Your task to perform on an android device: change alarm snooze length Image 0: 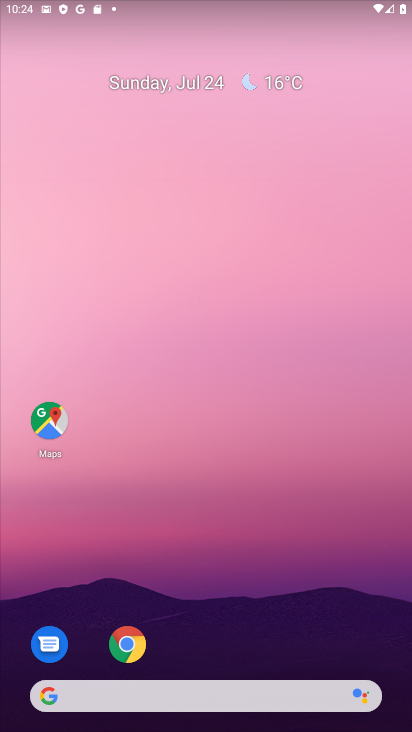
Step 0: drag from (258, 666) to (228, 195)
Your task to perform on an android device: change alarm snooze length Image 1: 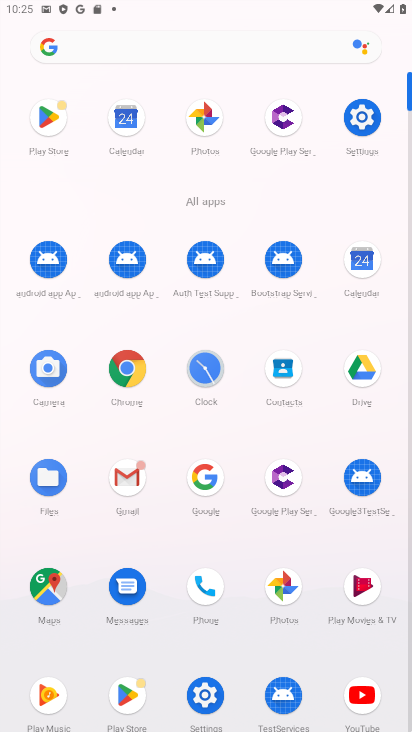
Step 1: click (208, 362)
Your task to perform on an android device: change alarm snooze length Image 2: 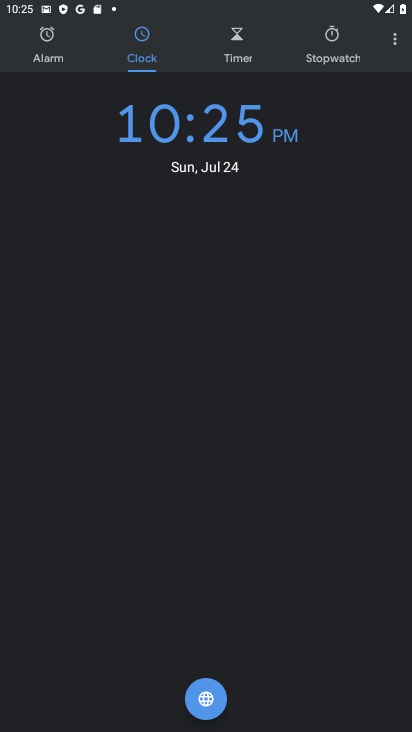
Step 2: click (402, 41)
Your task to perform on an android device: change alarm snooze length Image 3: 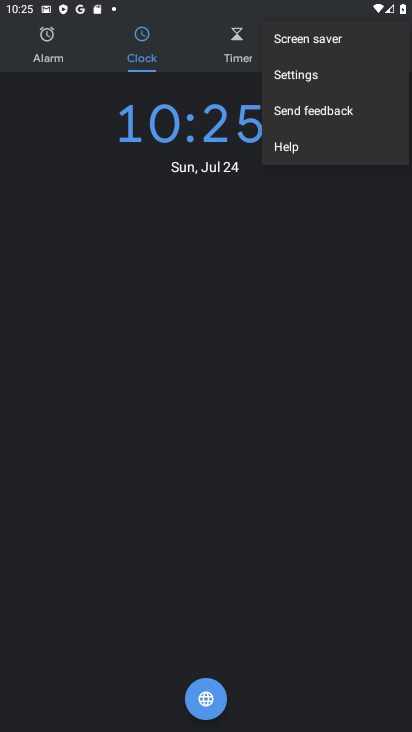
Step 3: click (302, 77)
Your task to perform on an android device: change alarm snooze length Image 4: 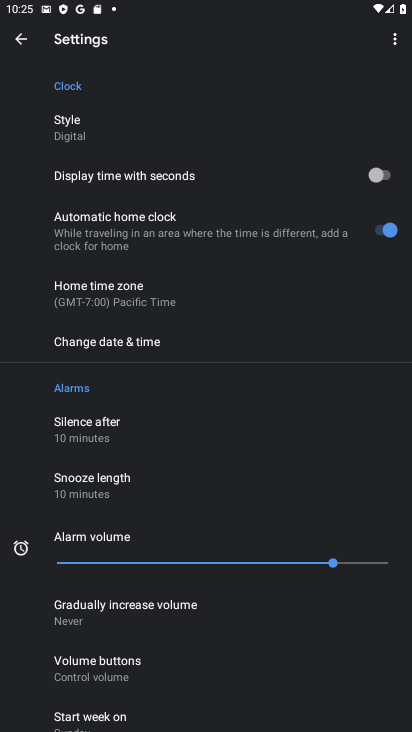
Step 4: click (111, 500)
Your task to perform on an android device: change alarm snooze length Image 5: 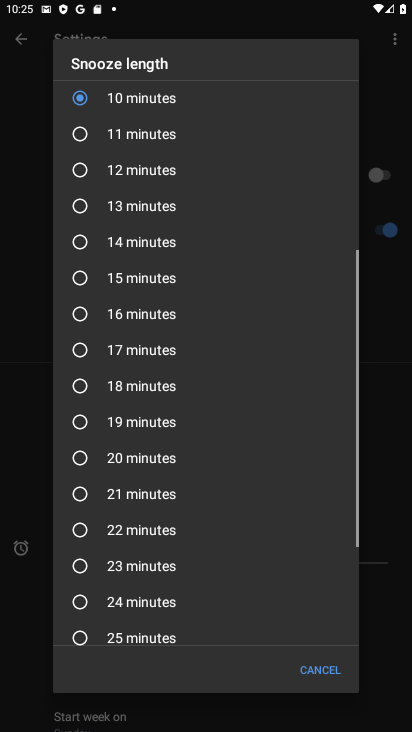
Step 5: click (103, 589)
Your task to perform on an android device: change alarm snooze length Image 6: 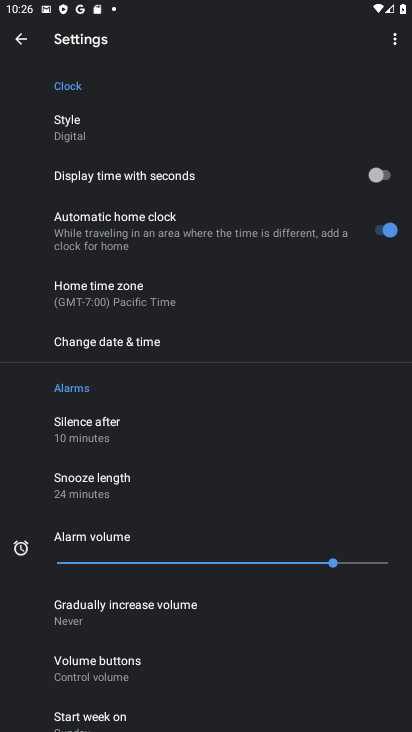
Step 6: task complete